Your task to perform on an android device: Open Google Maps and go to "Timeline" Image 0: 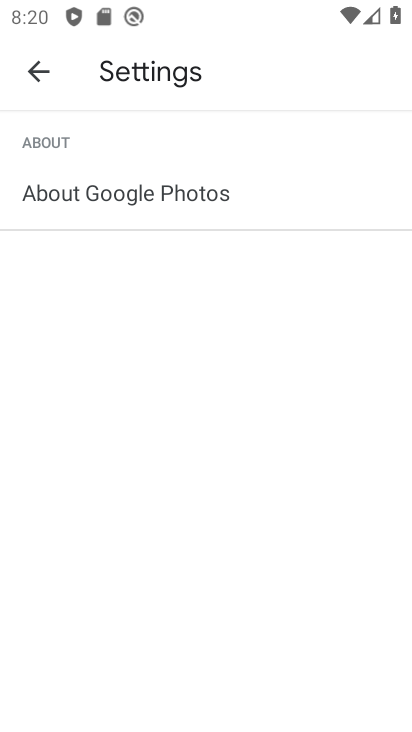
Step 0: press home button
Your task to perform on an android device: Open Google Maps and go to "Timeline" Image 1: 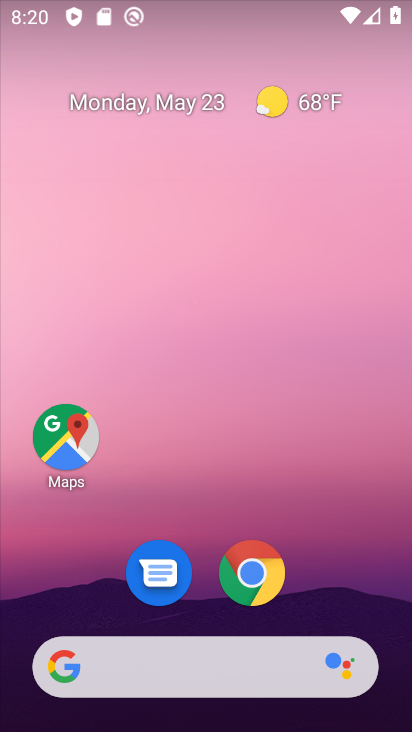
Step 1: click (59, 430)
Your task to perform on an android device: Open Google Maps and go to "Timeline" Image 2: 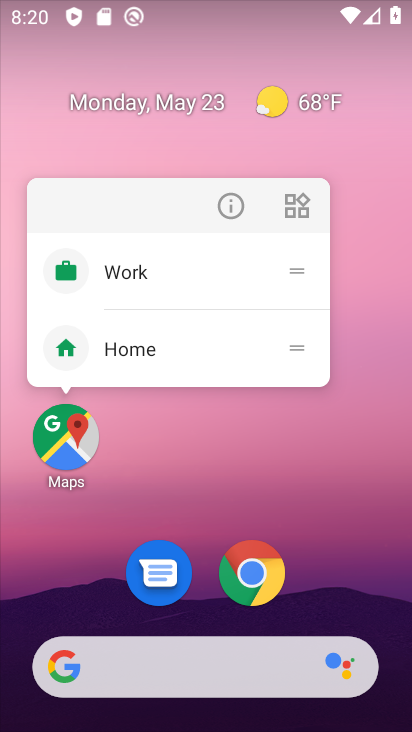
Step 2: click (67, 432)
Your task to perform on an android device: Open Google Maps and go to "Timeline" Image 3: 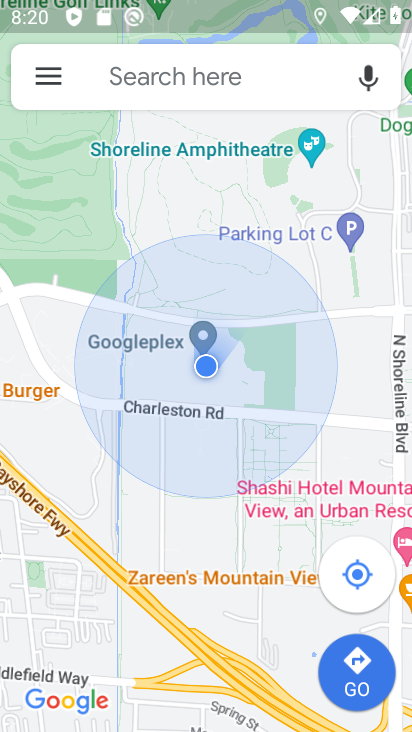
Step 3: click (40, 71)
Your task to perform on an android device: Open Google Maps and go to "Timeline" Image 4: 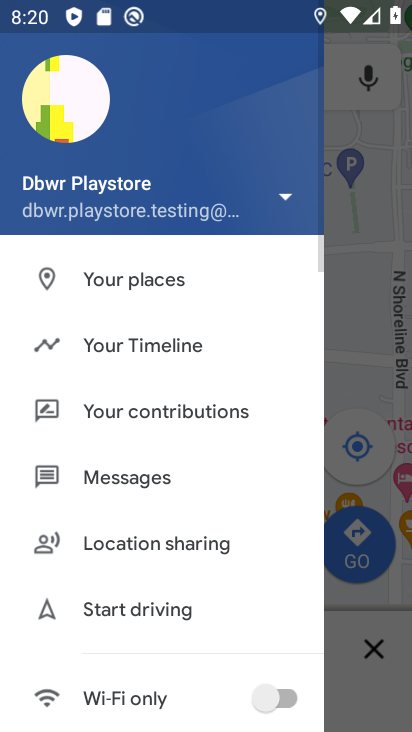
Step 4: click (138, 344)
Your task to perform on an android device: Open Google Maps and go to "Timeline" Image 5: 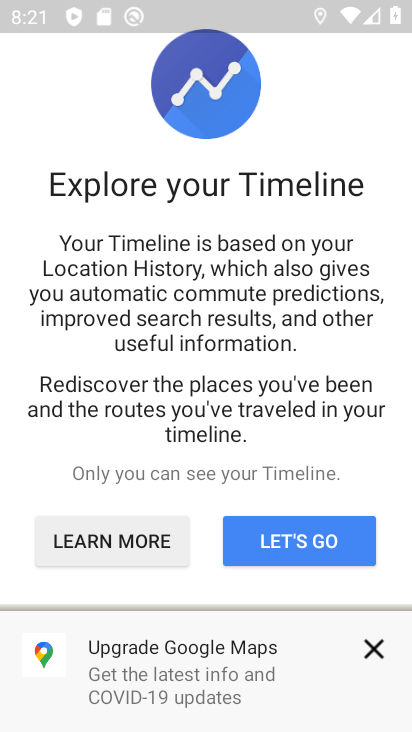
Step 5: click (287, 535)
Your task to perform on an android device: Open Google Maps and go to "Timeline" Image 6: 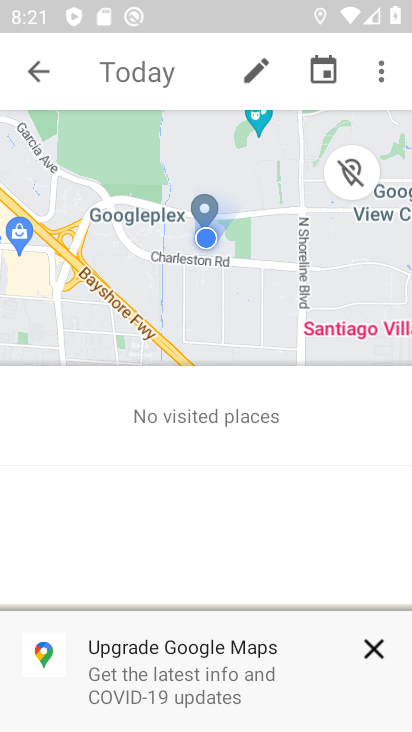
Step 6: task complete